Your task to perform on an android device: Go to eBay Image 0: 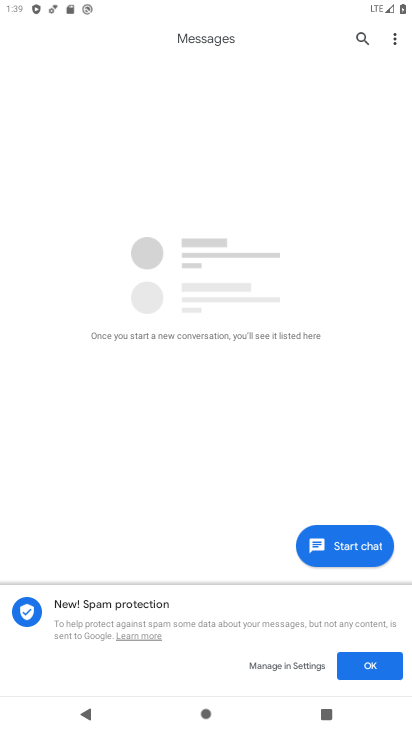
Step 0: press home button
Your task to perform on an android device: Go to eBay Image 1: 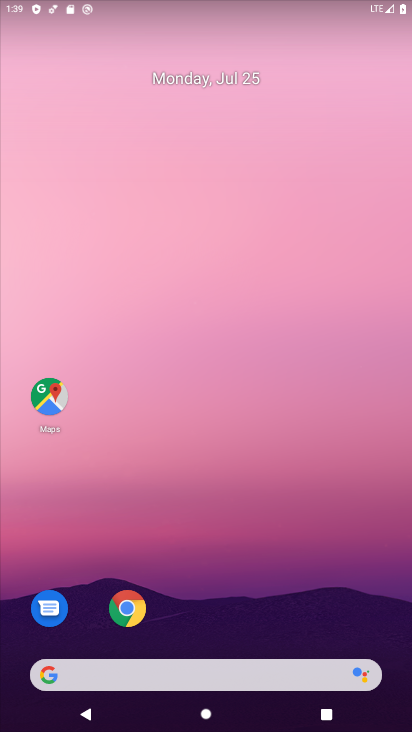
Step 1: drag from (186, 662) to (189, 82)
Your task to perform on an android device: Go to eBay Image 2: 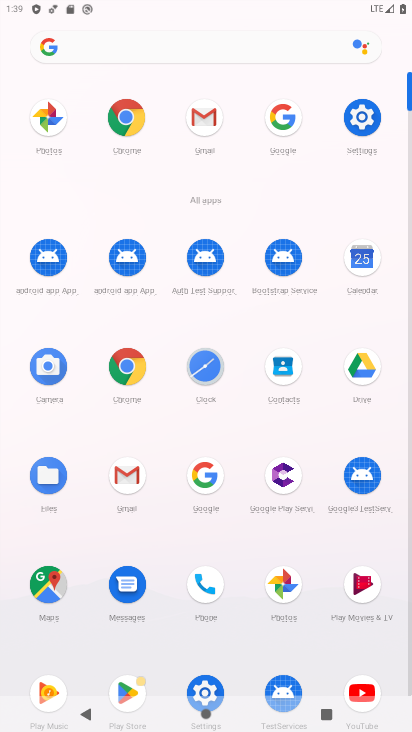
Step 2: click (199, 479)
Your task to perform on an android device: Go to eBay Image 3: 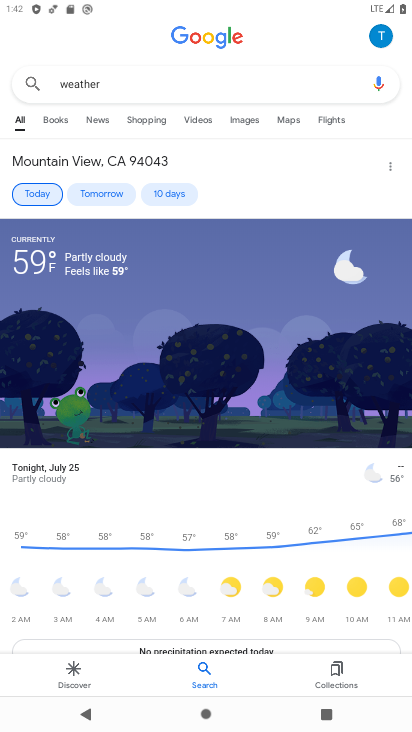
Step 3: click (151, 86)
Your task to perform on an android device: Go to eBay Image 4: 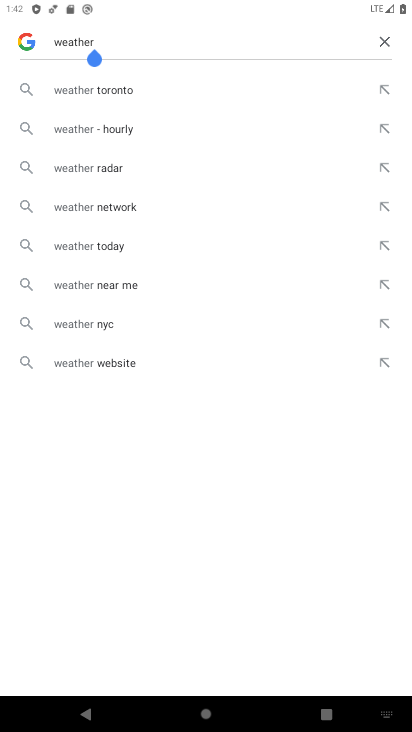
Step 4: click (376, 46)
Your task to perform on an android device: Go to eBay Image 5: 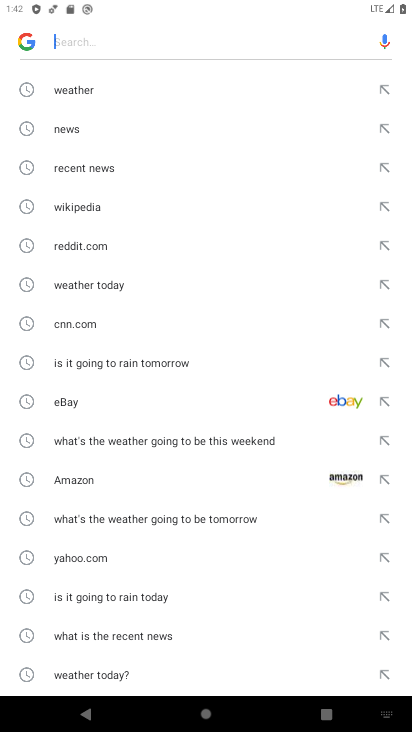
Step 5: click (224, 393)
Your task to perform on an android device: Go to eBay Image 6: 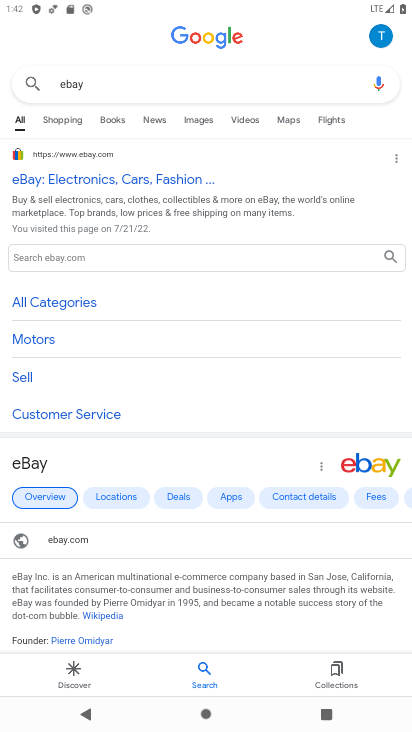
Step 6: click (140, 179)
Your task to perform on an android device: Go to eBay Image 7: 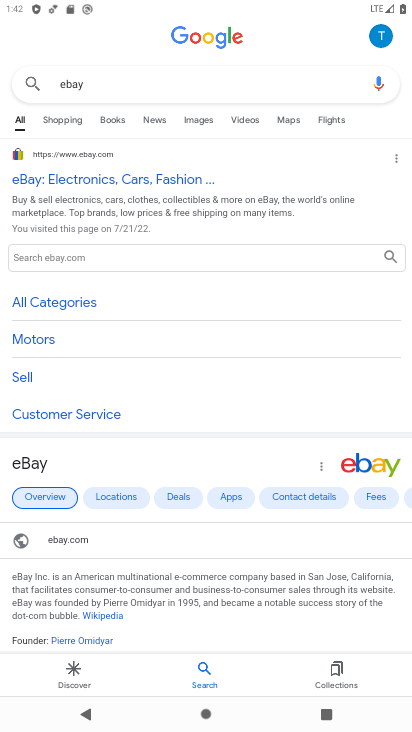
Step 7: click (161, 173)
Your task to perform on an android device: Go to eBay Image 8: 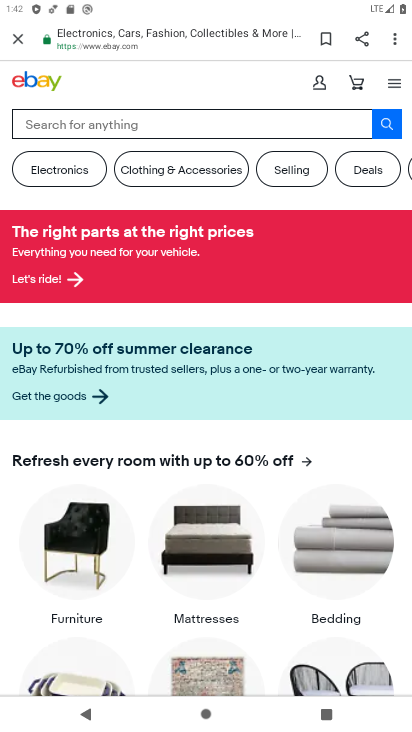
Step 8: task complete